Your task to perform on an android device: Open maps Image 0: 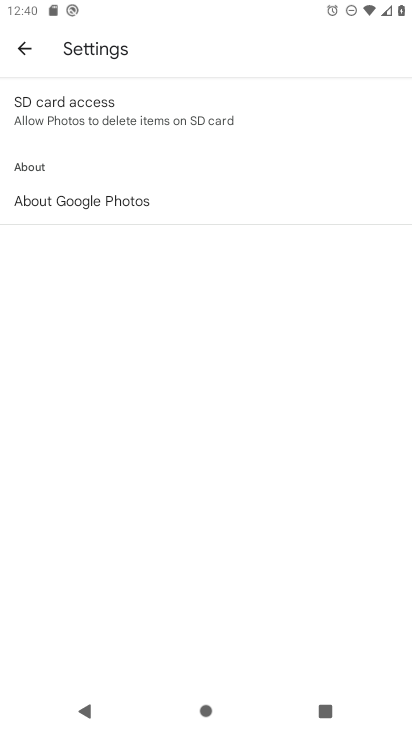
Step 0: press home button
Your task to perform on an android device: Open maps Image 1: 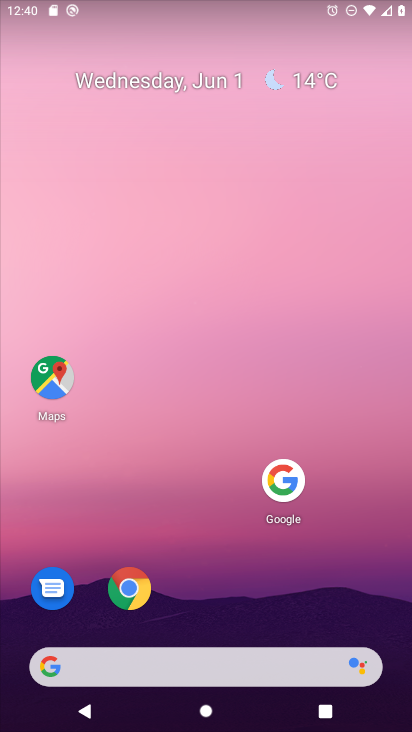
Step 1: click (54, 371)
Your task to perform on an android device: Open maps Image 2: 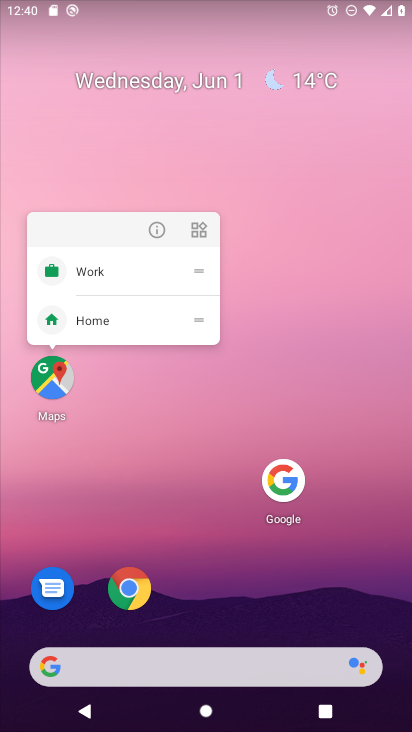
Step 2: click (51, 386)
Your task to perform on an android device: Open maps Image 3: 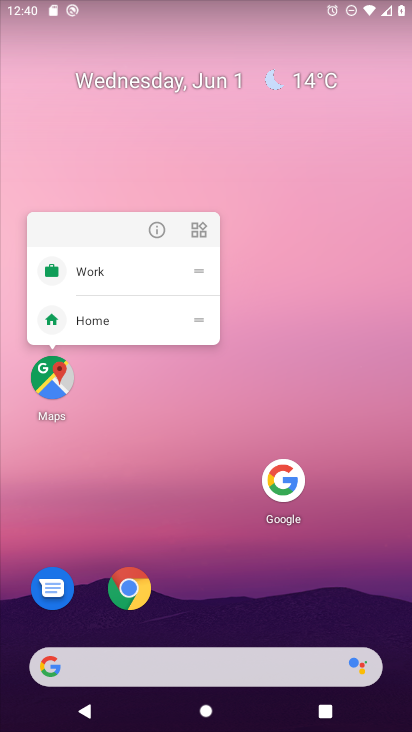
Step 3: click (45, 383)
Your task to perform on an android device: Open maps Image 4: 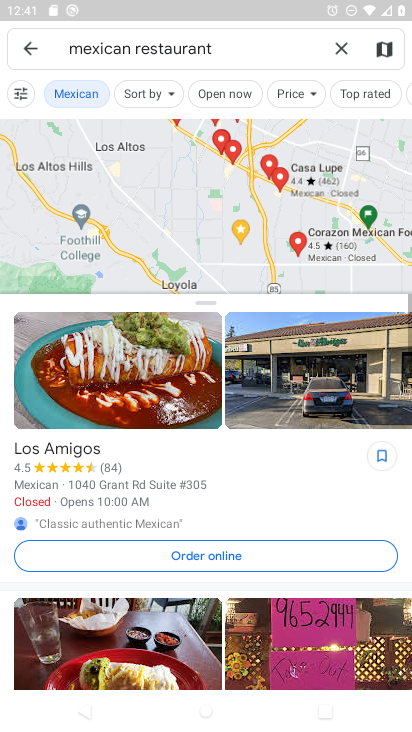
Step 4: click (34, 45)
Your task to perform on an android device: Open maps Image 5: 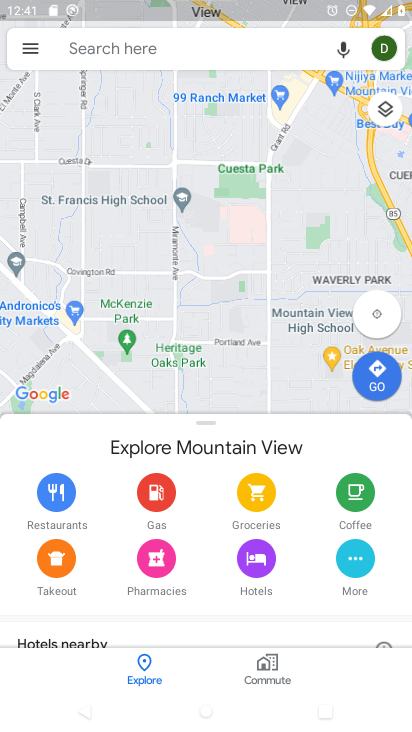
Step 5: task complete